Your task to perform on an android device: turn on translation in the chrome app Image 0: 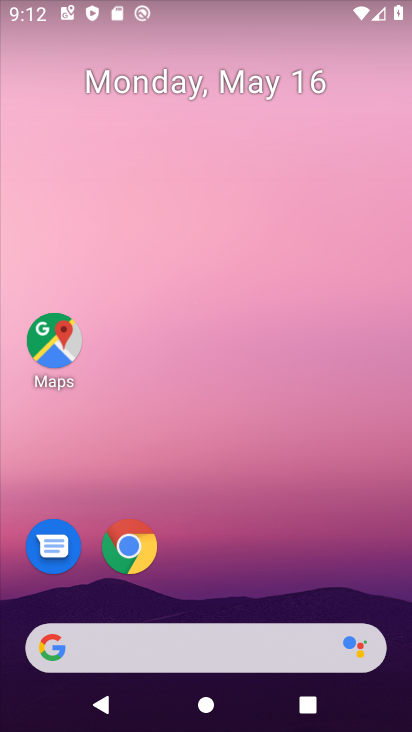
Step 0: drag from (291, 672) to (273, 203)
Your task to perform on an android device: turn on translation in the chrome app Image 1: 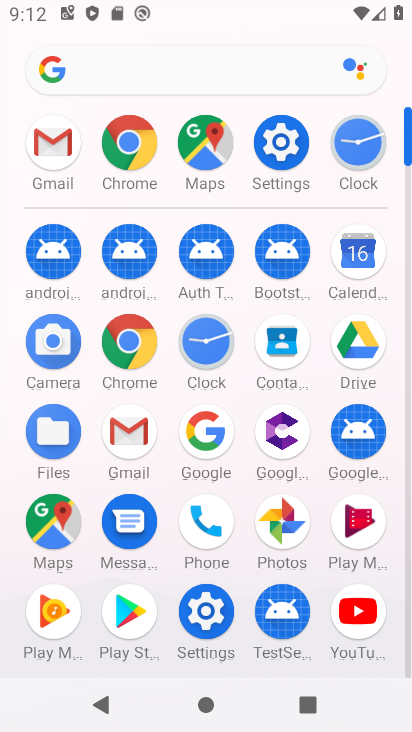
Step 1: click (119, 153)
Your task to perform on an android device: turn on translation in the chrome app Image 2: 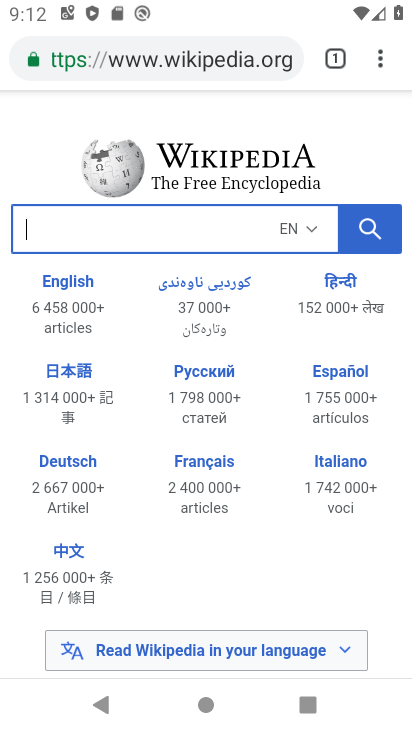
Step 2: click (334, 52)
Your task to perform on an android device: turn on translation in the chrome app Image 3: 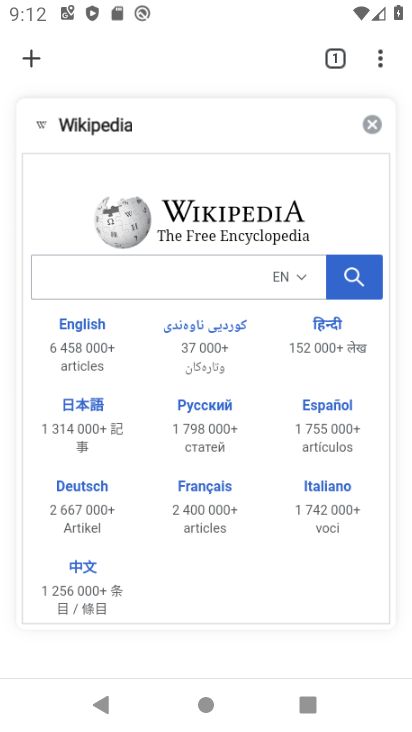
Step 3: click (28, 52)
Your task to perform on an android device: turn on translation in the chrome app Image 4: 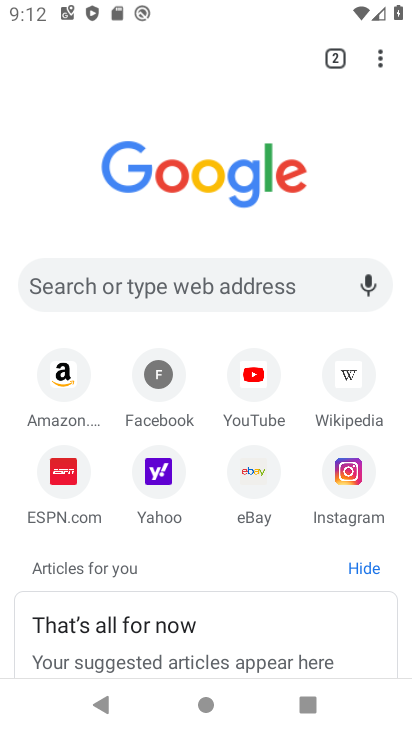
Step 4: click (381, 58)
Your task to perform on an android device: turn on translation in the chrome app Image 5: 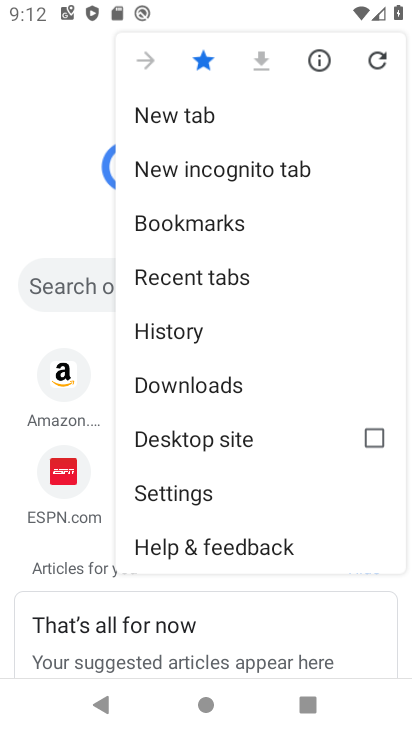
Step 5: click (198, 498)
Your task to perform on an android device: turn on translation in the chrome app Image 6: 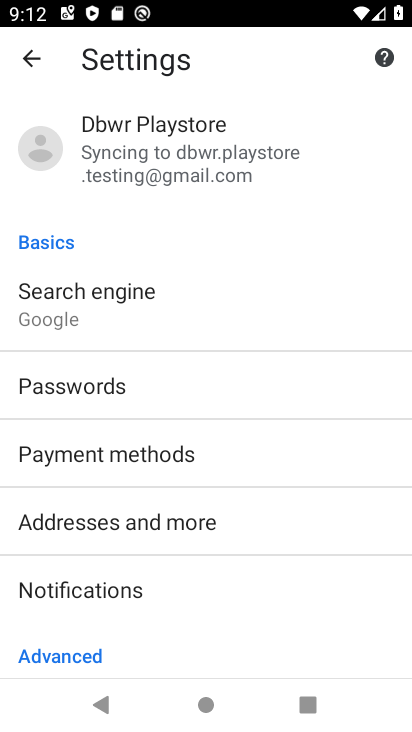
Step 6: drag from (151, 585) to (251, 122)
Your task to perform on an android device: turn on translation in the chrome app Image 7: 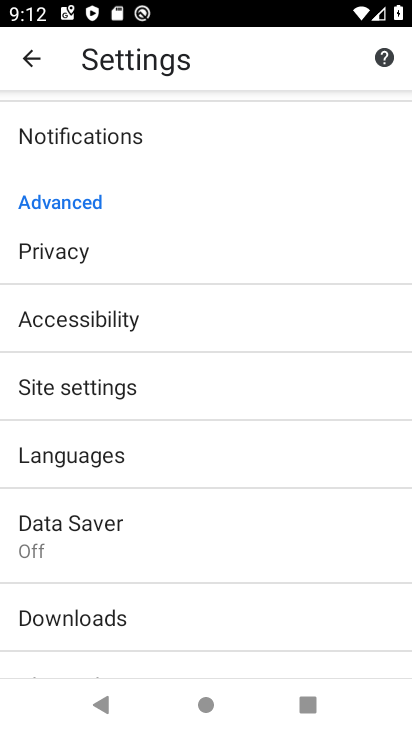
Step 7: click (111, 466)
Your task to perform on an android device: turn on translation in the chrome app Image 8: 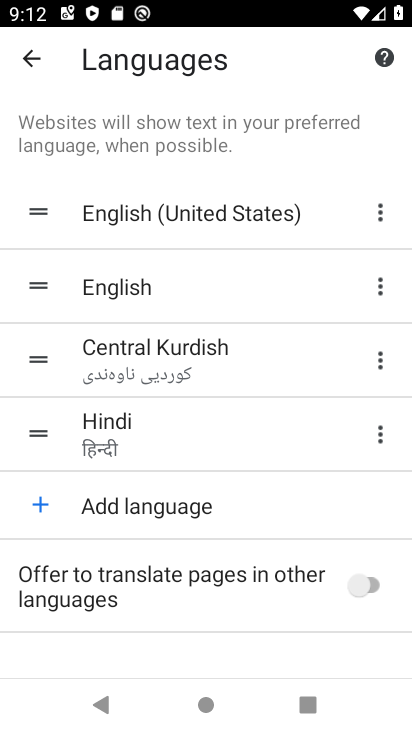
Step 8: click (344, 577)
Your task to perform on an android device: turn on translation in the chrome app Image 9: 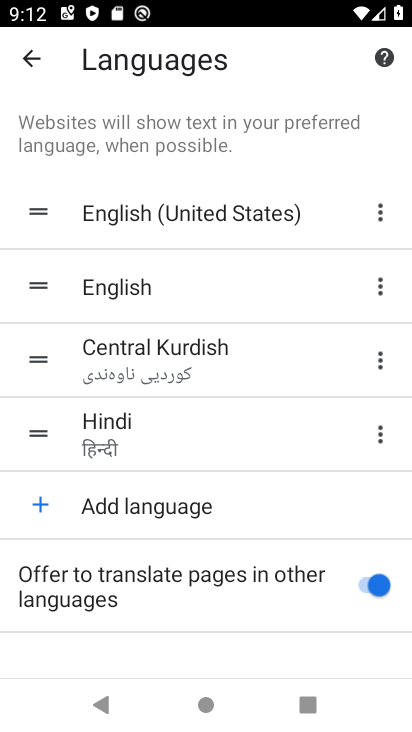
Step 9: task complete